Your task to perform on an android device: Check the news Image 0: 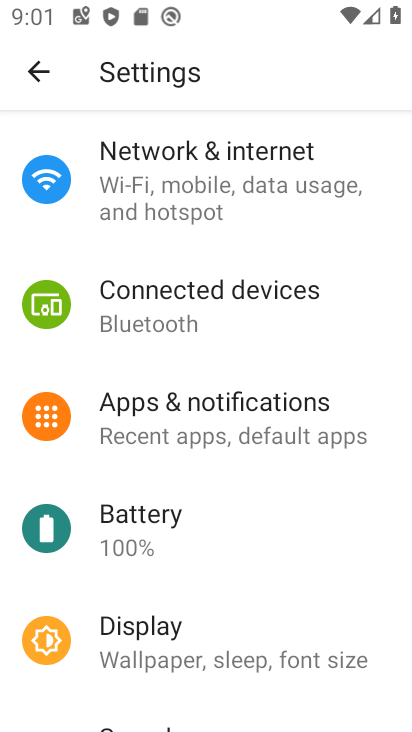
Step 0: press home button
Your task to perform on an android device: Check the news Image 1: 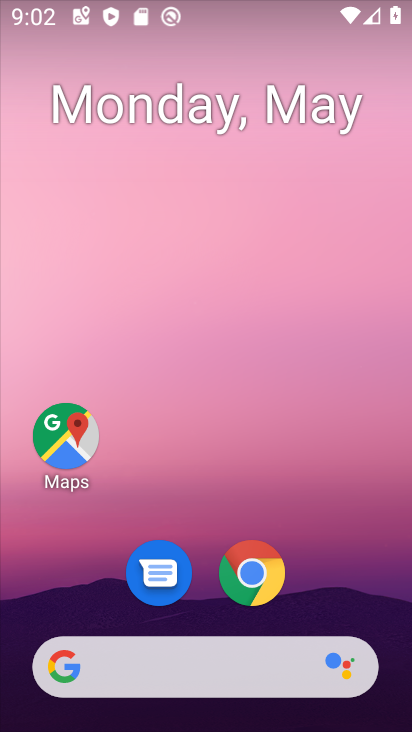
Step 1: drag from (332, 598) to (259, 221)
Your task to perform on an android device: Check the news Image 2: 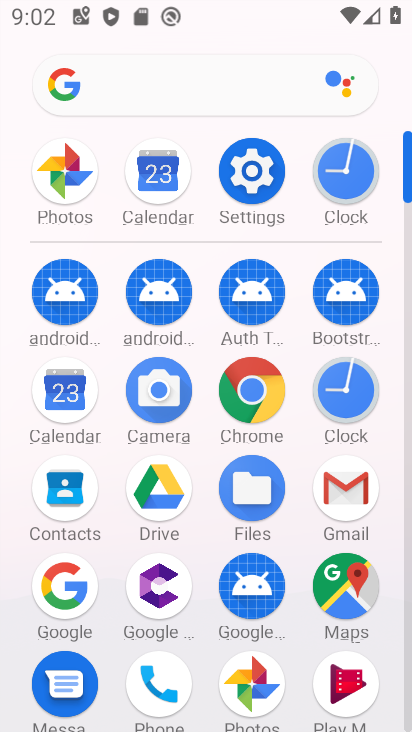
Step 2: click (179, 73)
Your task to perform on an android device: Check the news Image 3: 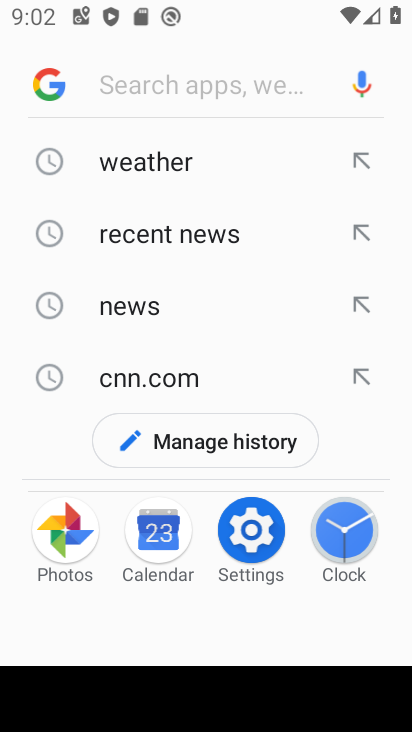
Step 3: click (149, 226)
Your task to perform on an android device: Check the news Image 4: 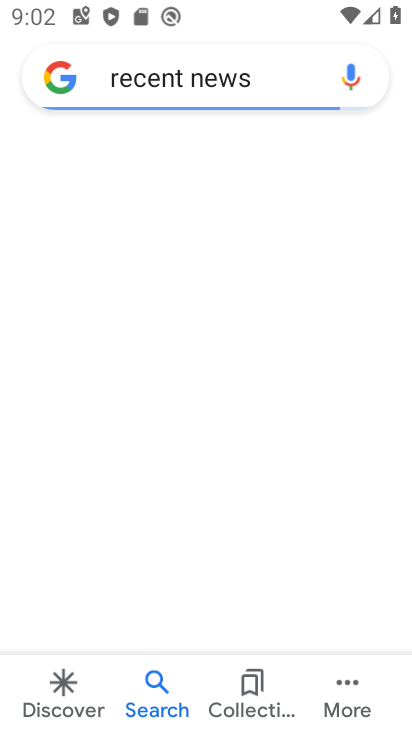
Step 4: task complete